Your task to perform on an android device: empty trash in google photos Image 0: 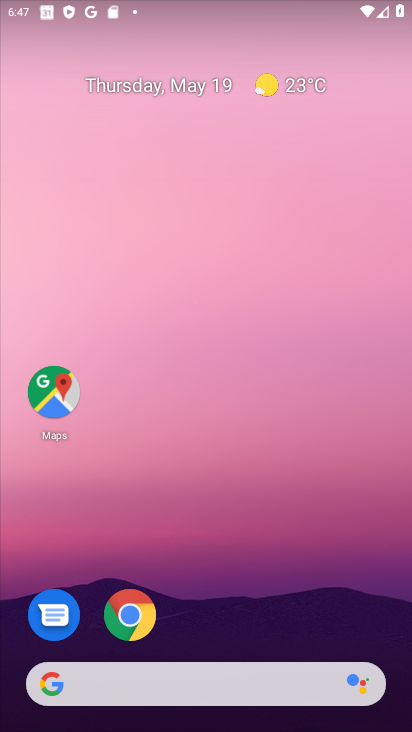
Step 0: drag from (299, 626) to (283, 66)
Your task to perform on an android device: empty trash in google photos Image 1: 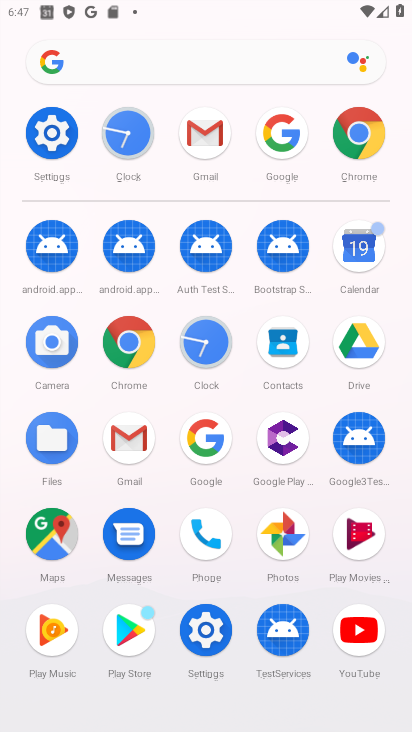
Step 1: click (282, 549)
Your task to perform on an android device: empty trash in google photos Image 2: 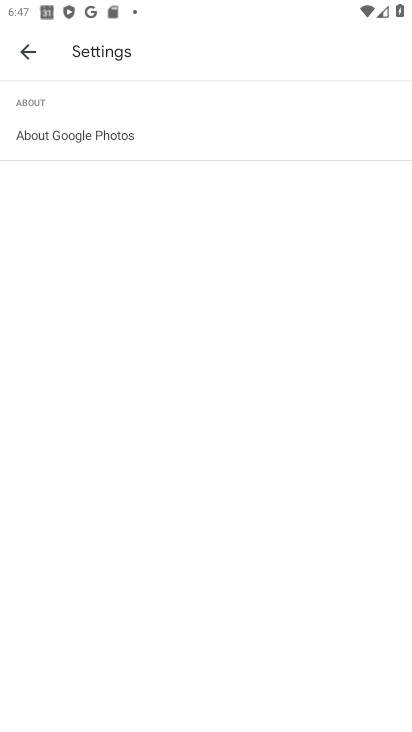
Step 2: press back button
Your task to perform on an android device: empty trash in google photos Image 3: 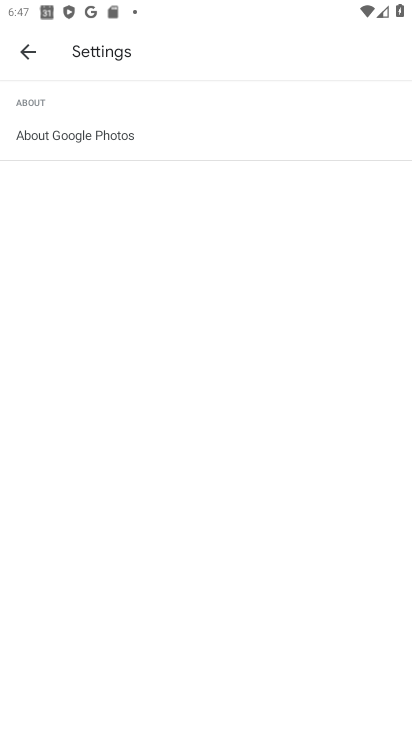
Step 3: press back button
Your task to perform on an android device: empty trash in google photos Image 4: 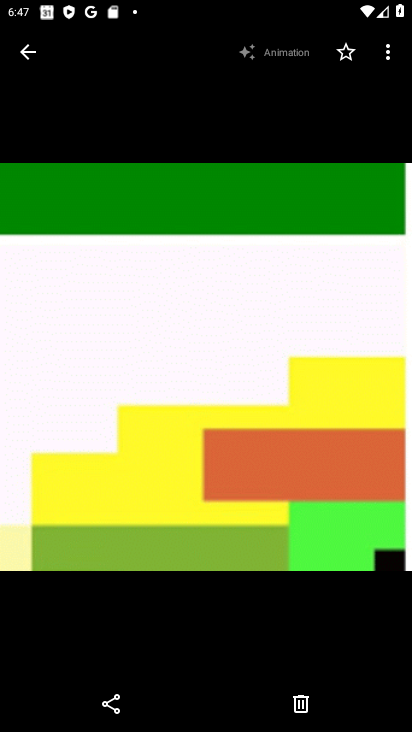
Step 4: press back button
Your task to perform on an android device: empty trash in google photos Image 5: 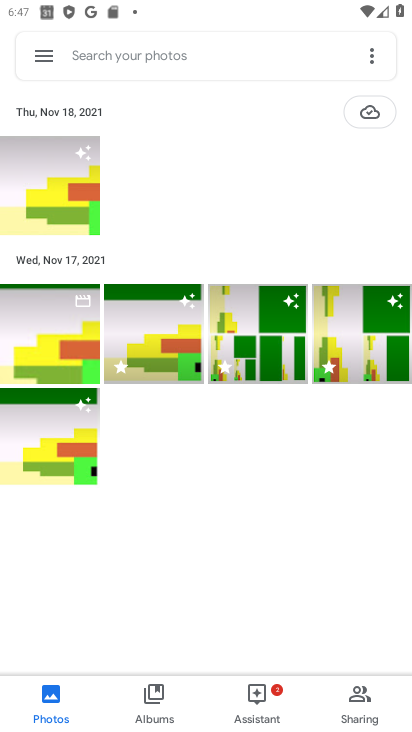
Step 5: click (55, 54)
Your task to perform on an android device: empty trash in google photos Image 6: 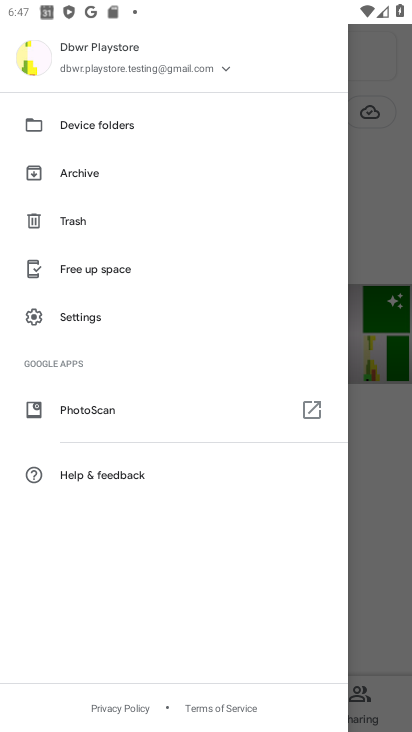
Step 6: click (94, 227)
Your task to perform on an android device: empty trash in google photos Image 7: 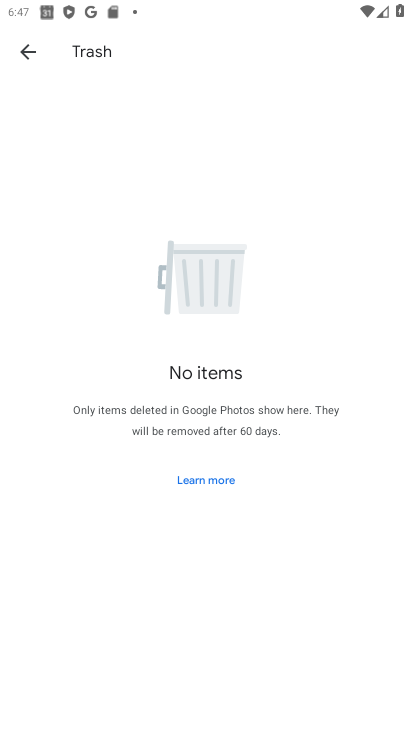
Step 7: task complete